Your task to perform on an android device: Show me the alarms in the clock app Image 0: 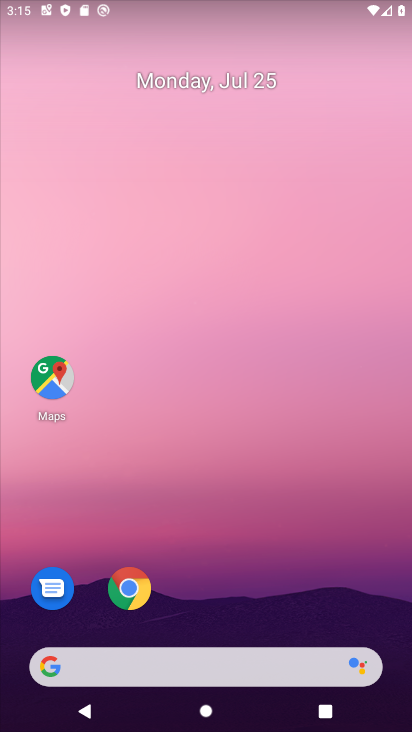
Step 0: drag from (306, 572) to (249, 18)
Your task to perform on an android device: Show me the alarms in the clock app Image 1: 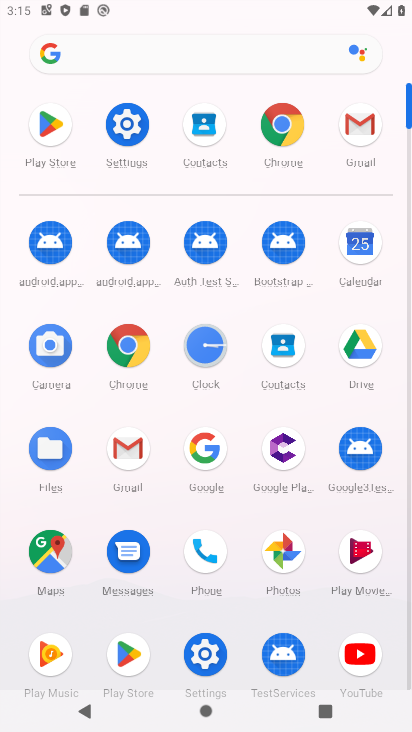
Step 1: click (203, 347)
Your task to perform on an android device: Show me the alarms in the clock app Image 2: 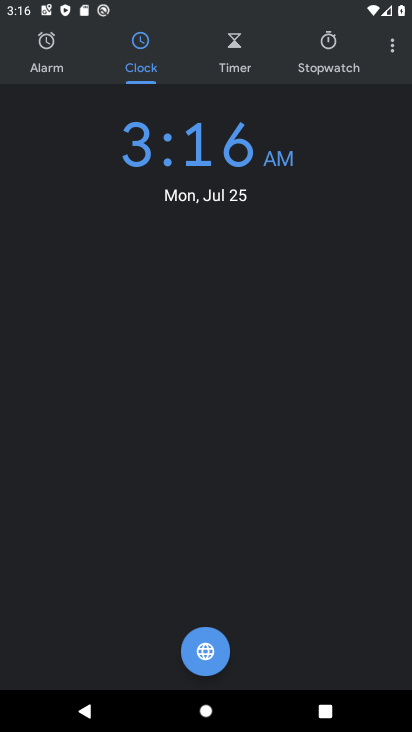
Step 2: click (42, 59)
Your task to perform on an android device: Show me the alarms in the clock app Image 3: 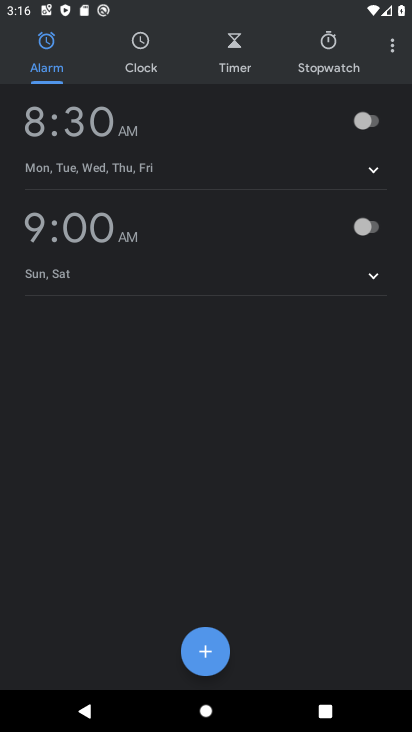
Step 3: task complete